Your task to perform on an android device: Open the Play Movies app and select the watchlist tab. Image 0: 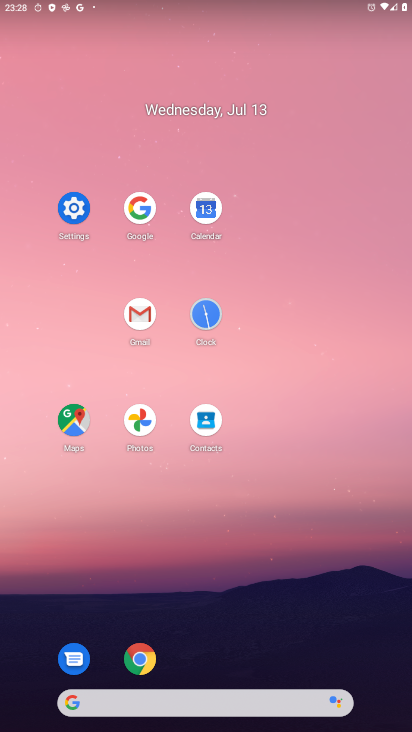
Step 0: drag from (226, 618) to (246, 131)
Your task to perform on an android device: Open the Play Movies app and select the watchlist tab. Image 1: 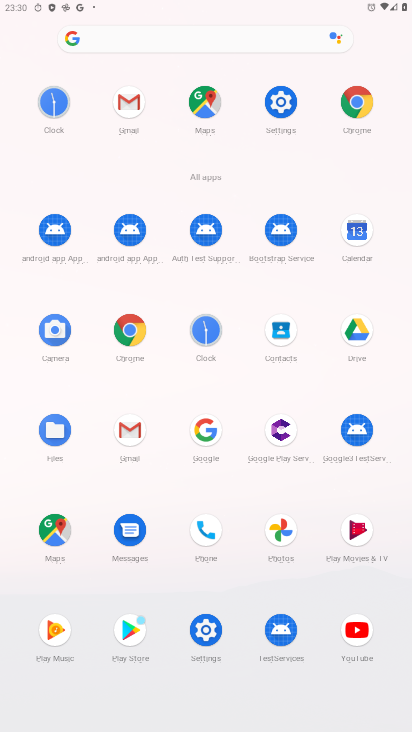
Step 1: click (357, 533)
Your task to perform on an android device: Open the Play Movies app and select the watchlist tab. Image 2: 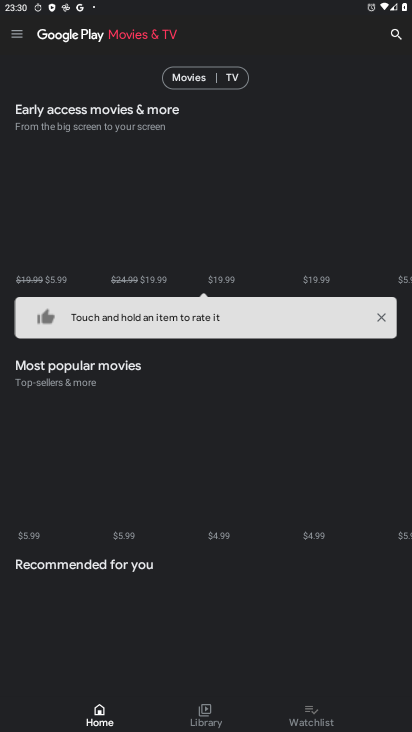
Step 2: click (313, 722)
Your task to perform on an android device: Open the Play Movies app and select the watchlist tab. Image 3: 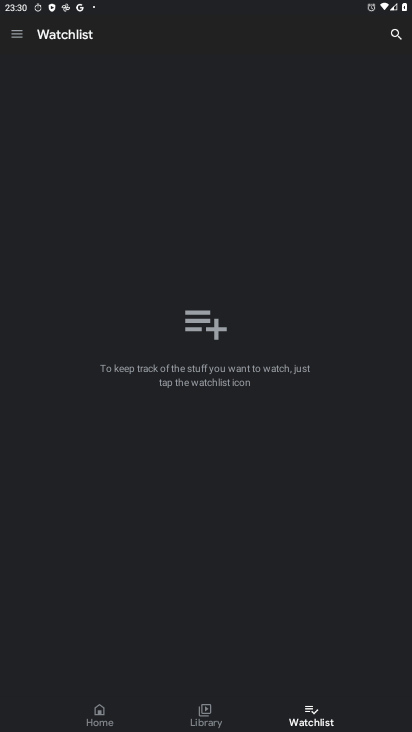
Step 3: task complete